Your task to perform on an android device: find photos in the google photos app Image 0: 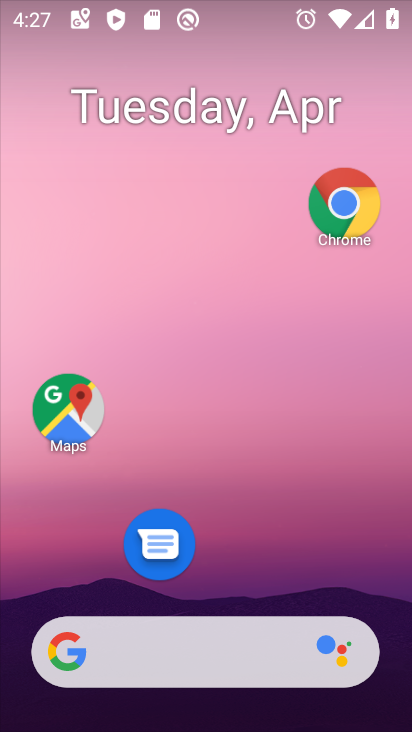
Step 0: drag from (232, 575) to (255, 42)
Your task to perform on an android device: find photos in the google photos app Image 1: 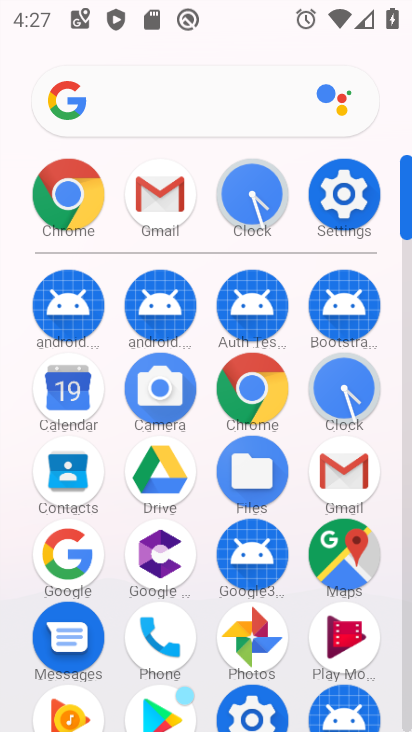
Step 1: click (250, 633)
Your task to perform on an android device: find photos in the google photos app Image 2: 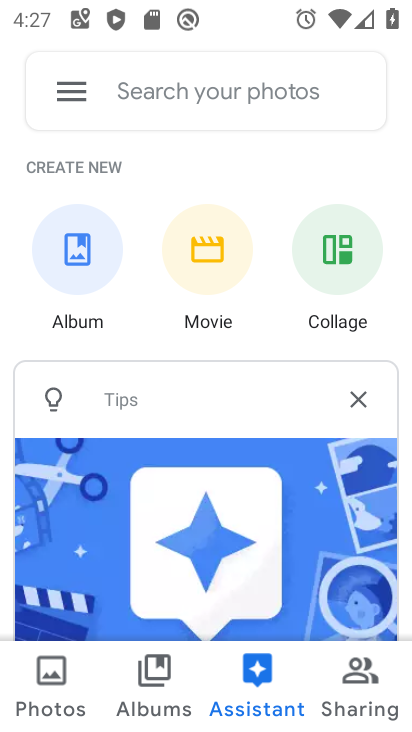
Step 2: click (31, 690)
Your task to perform on an android device: find photos in the google photos app Image 3: 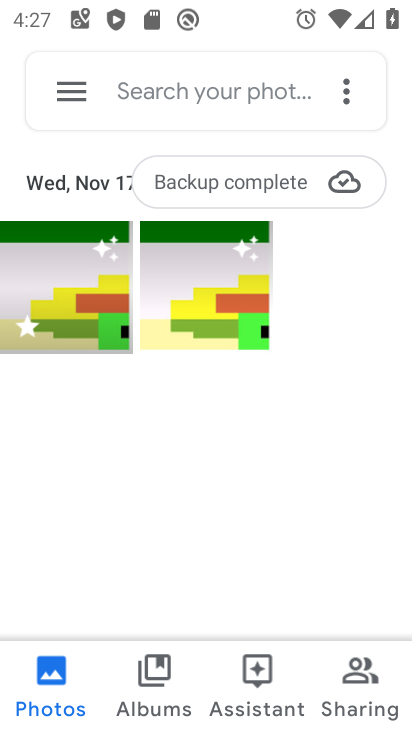
Step 3: task complete